Your task to perform on an android device: Toggle the flashlight Image 0: 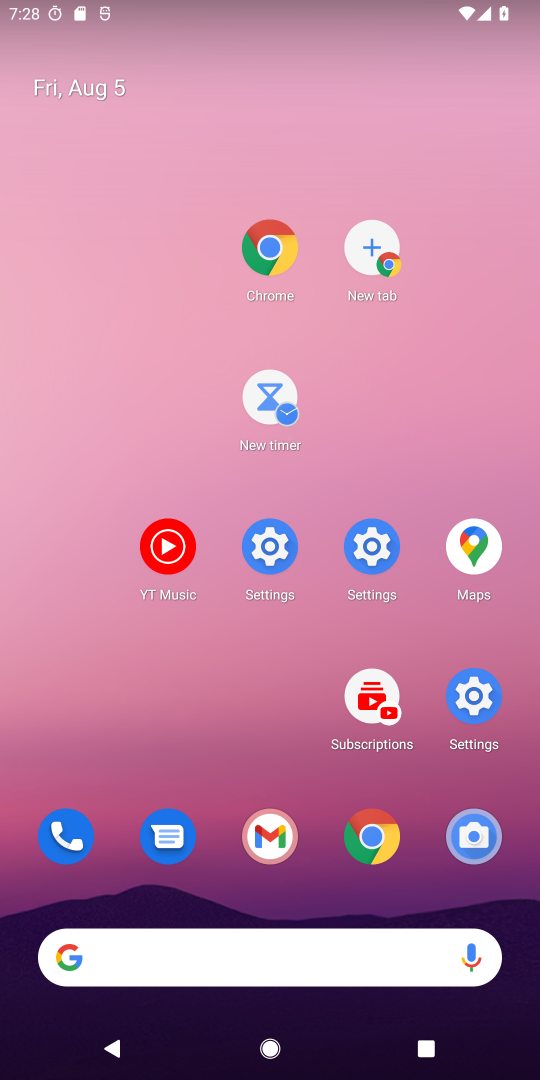
Step 0: drag from (356, 987) to (206, 323)
Your task to perform on an android device: Toggle the flashlight Image 1: 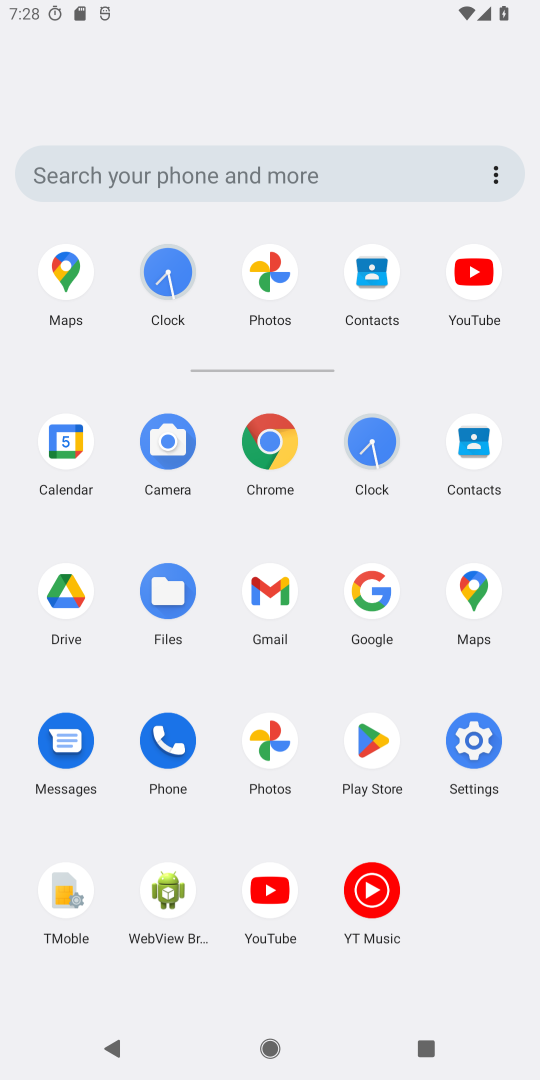
Step 1: task complete